Your task to perform on an android device: manage bookmarks in the chrome app Image 0: 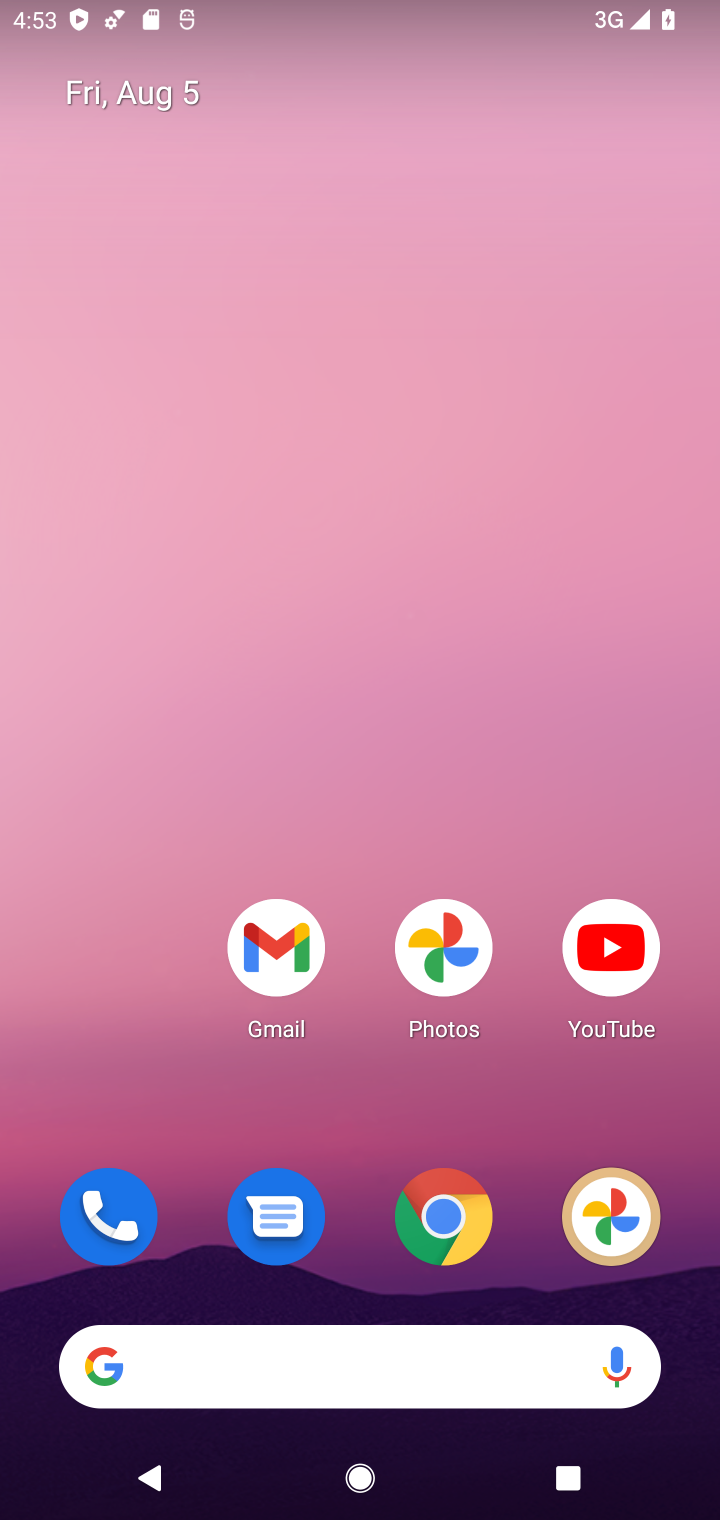
Step 0: click (451, 1205)
Your task to perform on an android device: manage bookmarks in the chrome app Image 1: 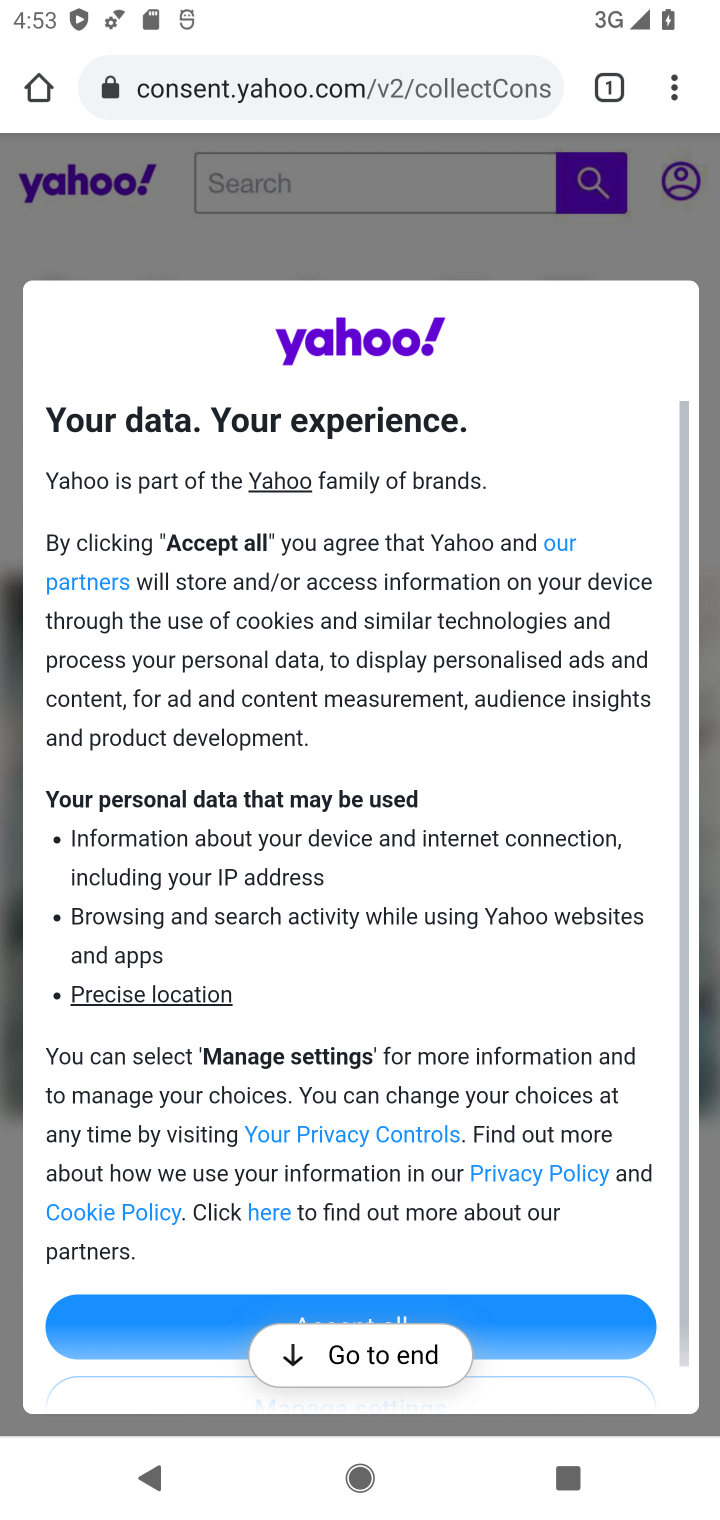
Step 1: click (675, 79)
Your task to perform on an android device: manage bookmarks in the chrome app Image 2: 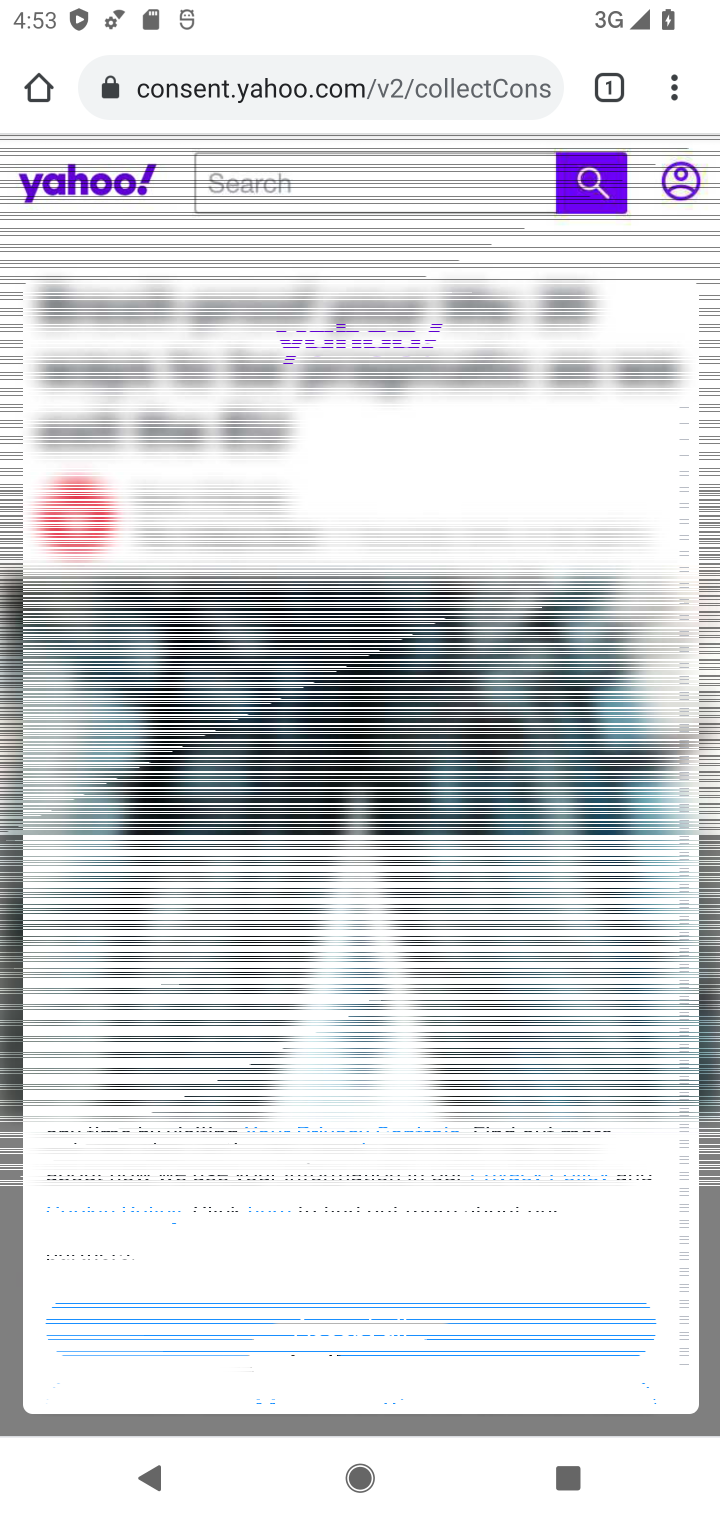
Step 2: click (667, 88)
Your task to perform on an android device: manage bookmarks in the chrome app Image 3: 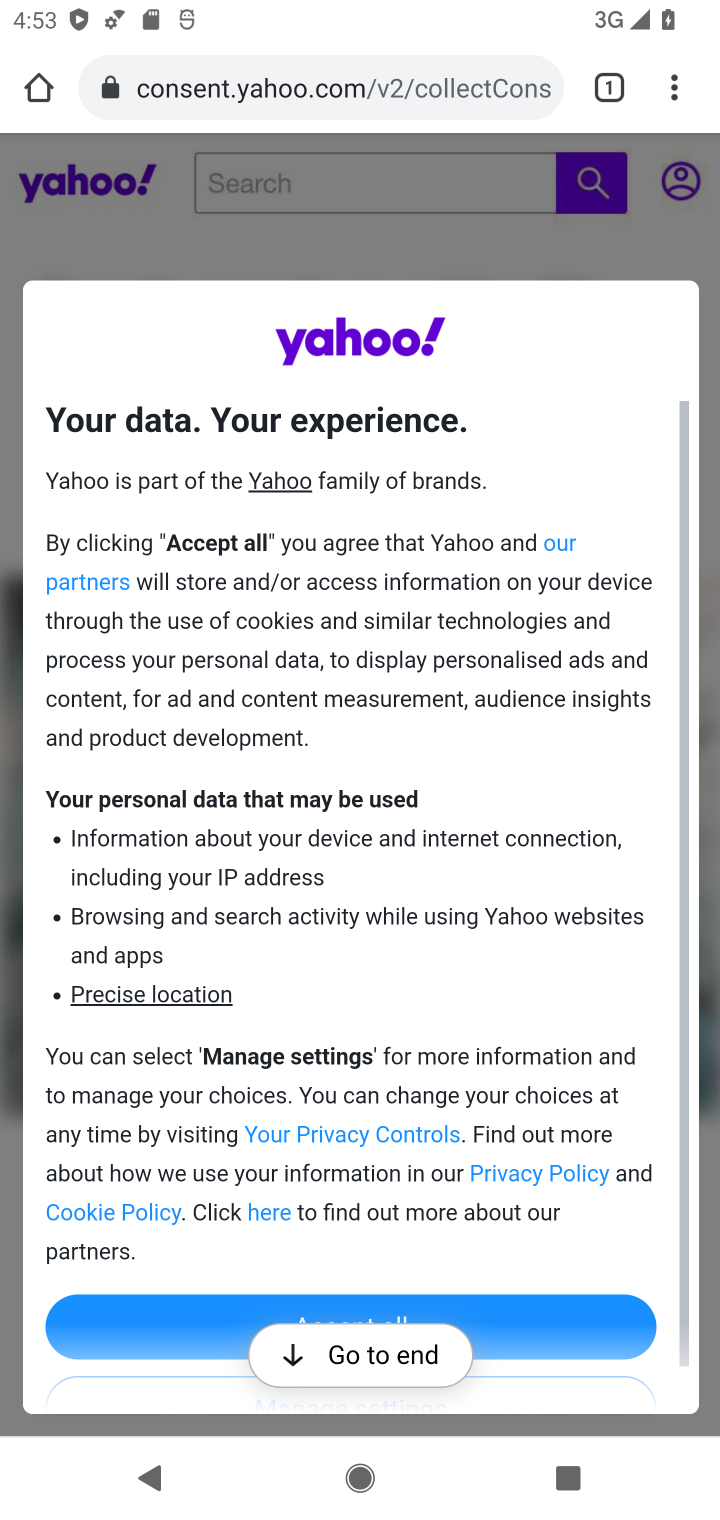
Step 3: click (712, 104)
Your task to perform on an android device: manage bookmarks in the chrome app Image 4: 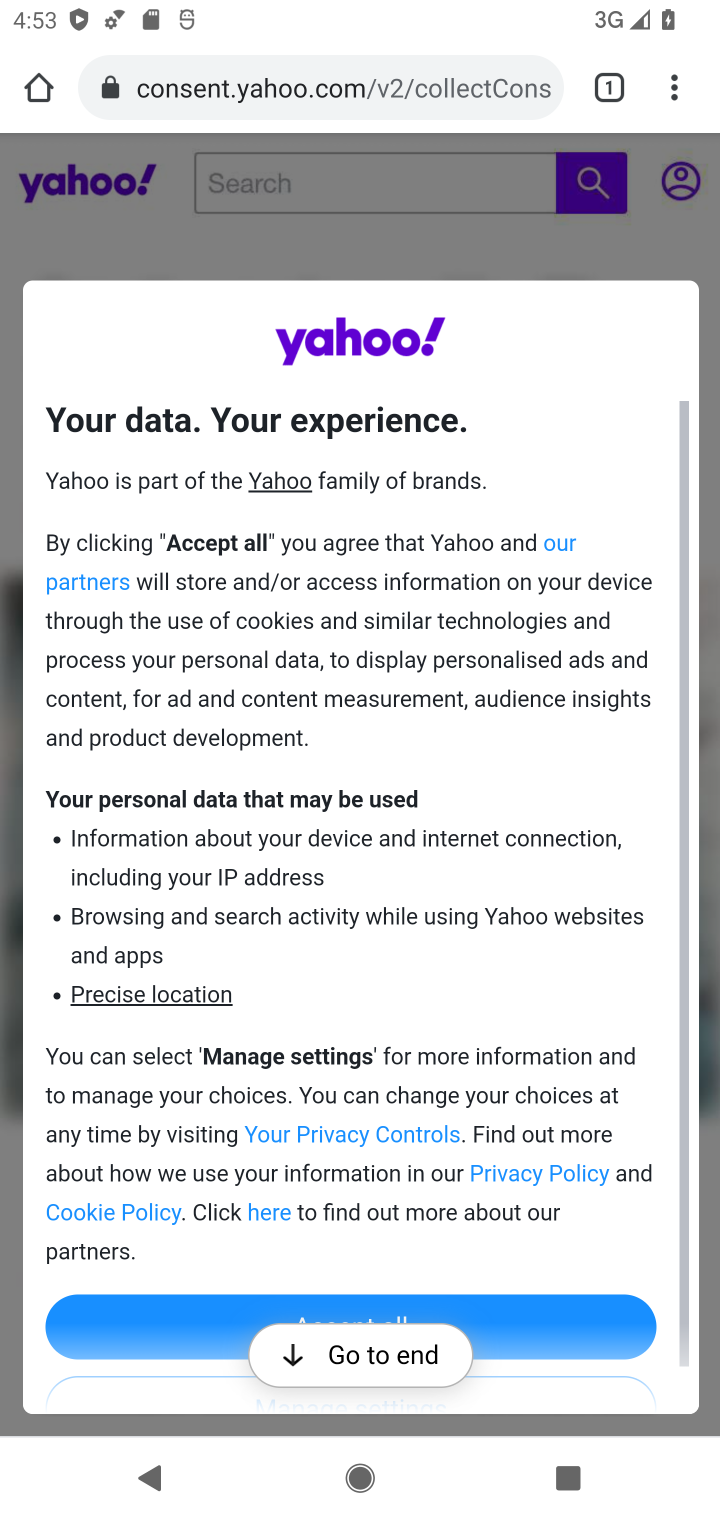
Step 4: click (711, 123)
Your task to perform on an android device: manage bookmarks in the chrome app Image 5: 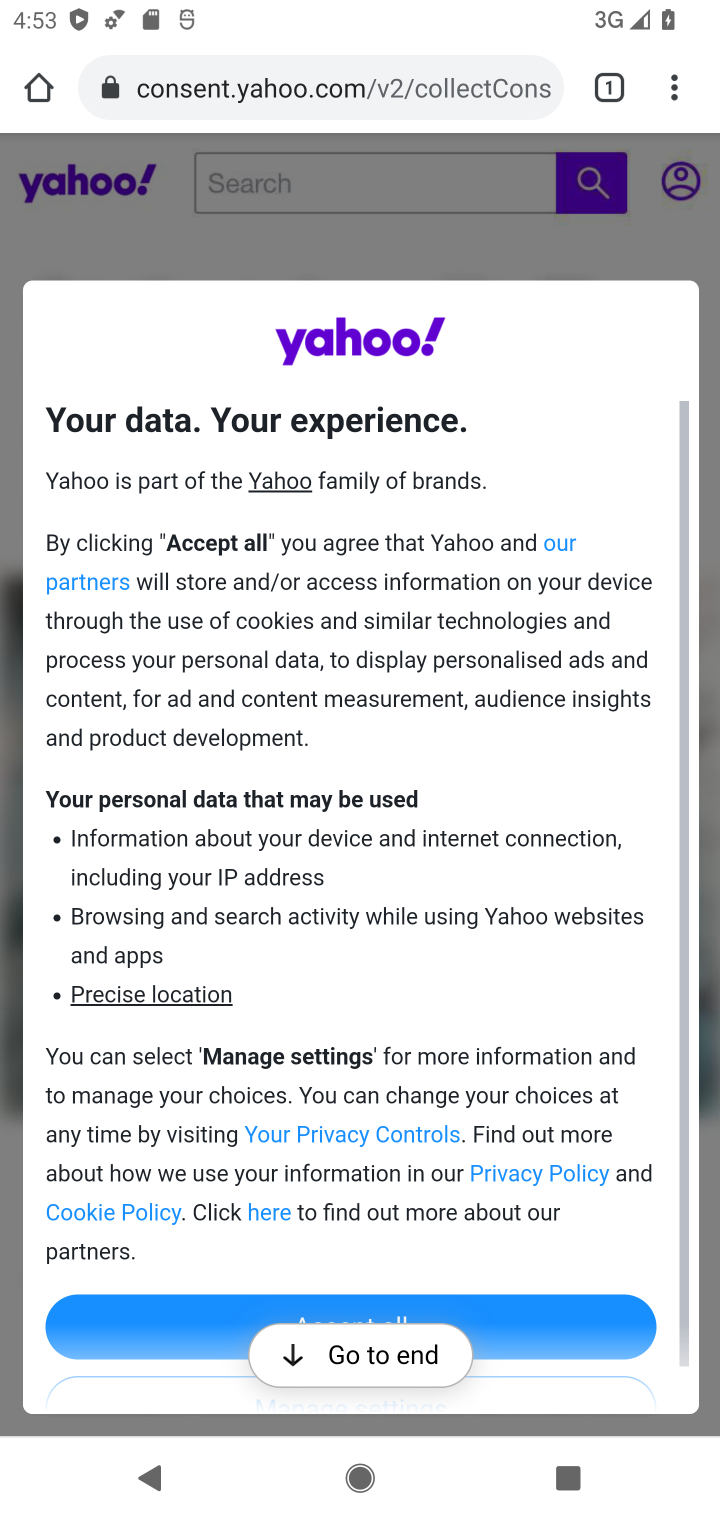
Step 5: click (711, 123)
Your task to perform on an android device: manage bookmarks in the chrome app Image 6: 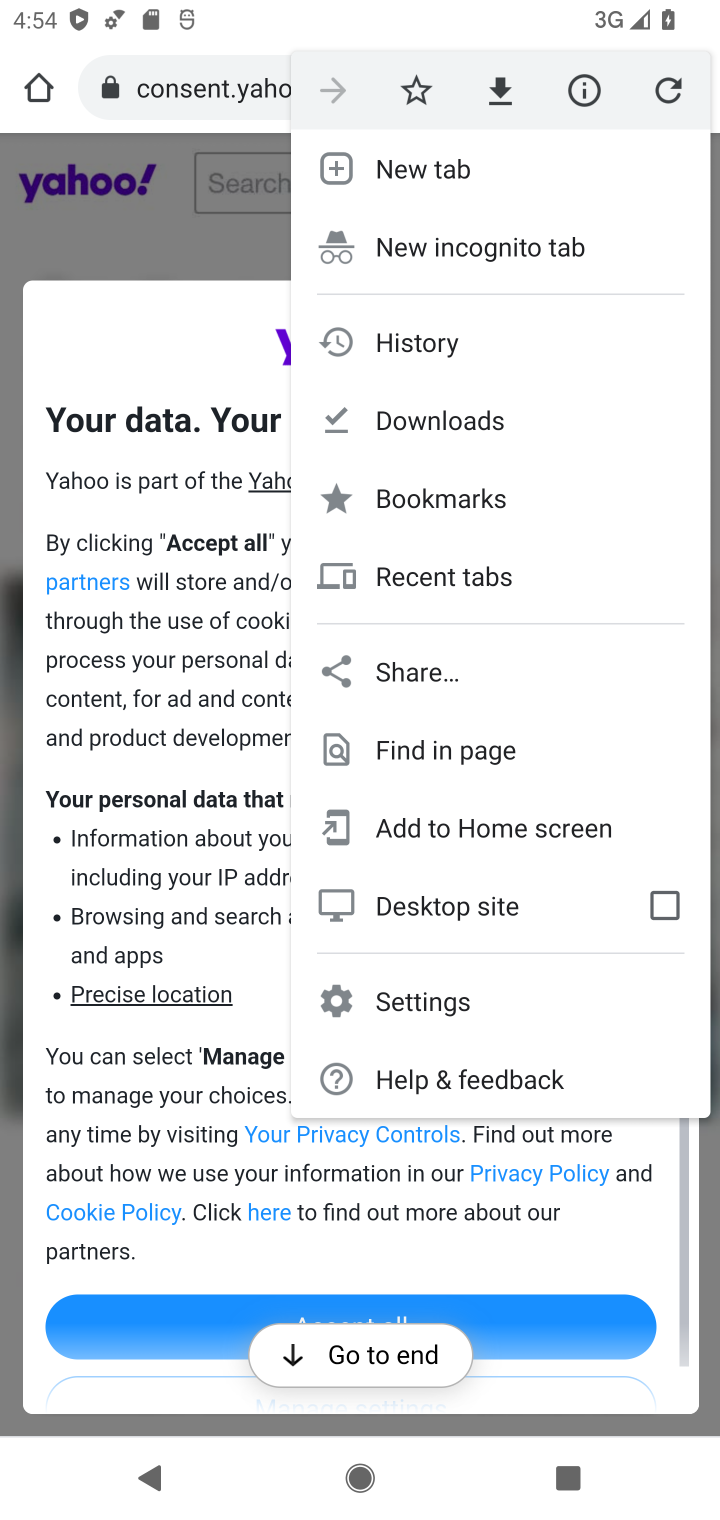
Step 6: click (384, 504)
Your task to perform on an android device: manage bookmarks in the chrome app Image 7: 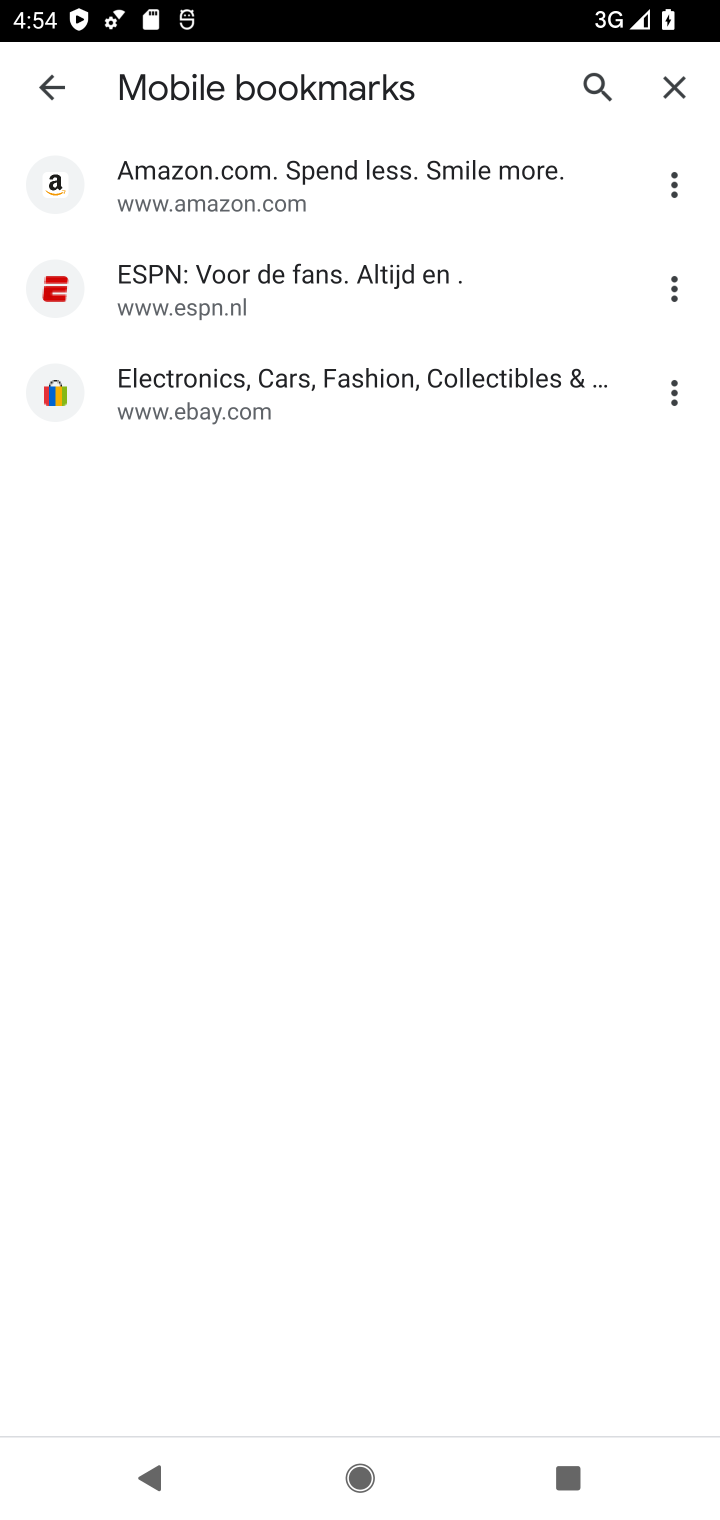
Step 7: click (669, 392)
Your task to perform on an android device: manage bookmarks in the chrome app Image 8: 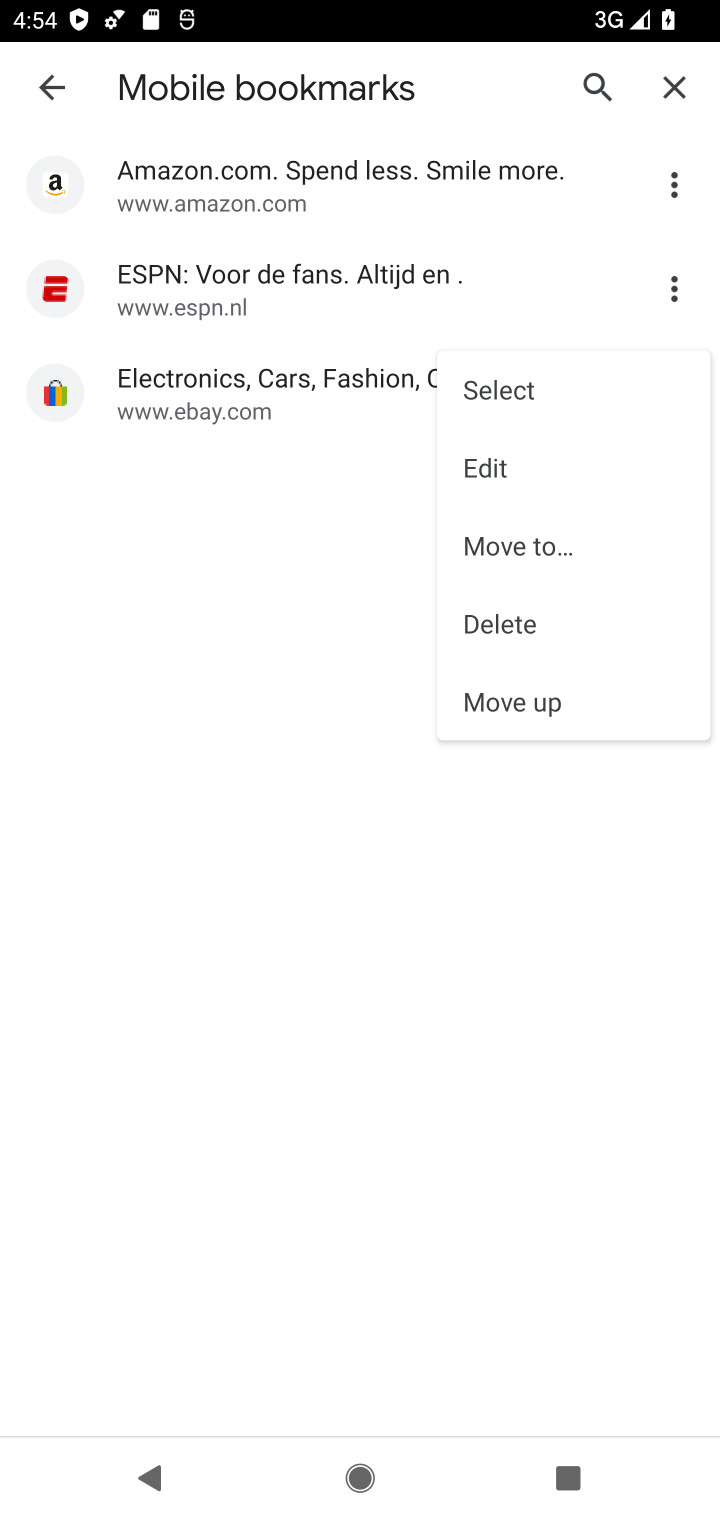
Step 8: click (565, 634)
Your task to perform on an android device: manage bookmarks in the chrome app Image 9: 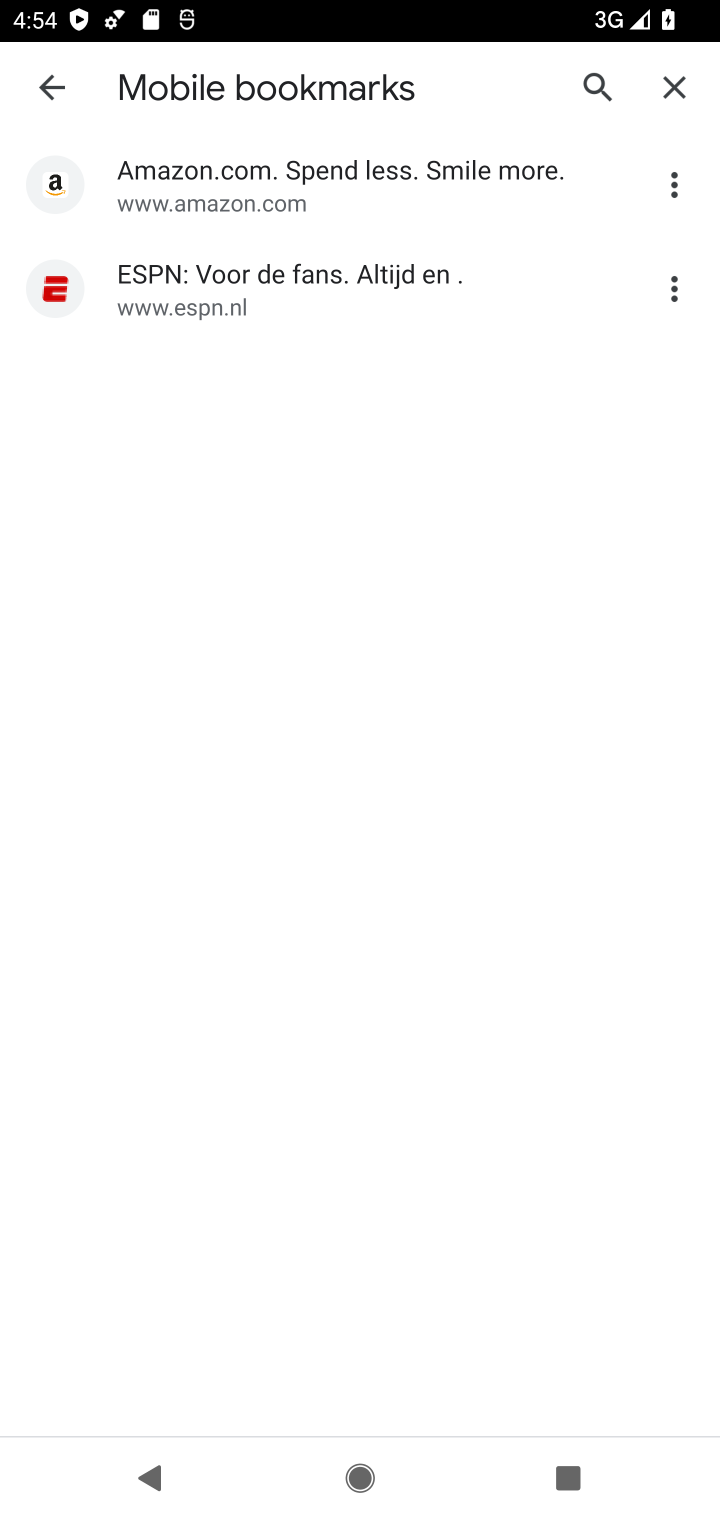
Step 9: task complete